Your task to perform on an android device: Go to privacy settings Image 0: 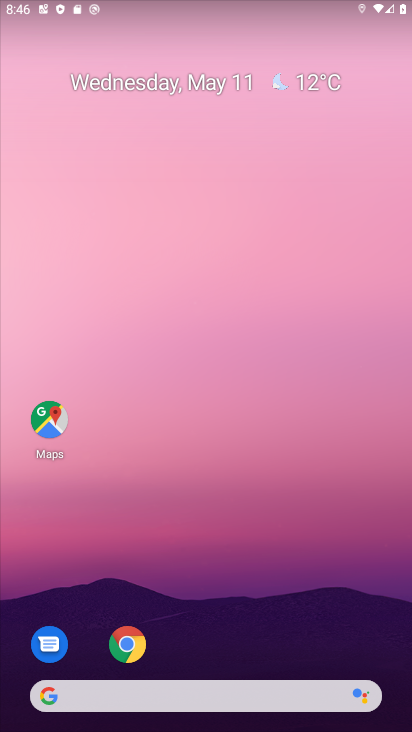
Step 0: click (119, 649)
Your task to perform on an android device: Go to privacy settings Image 1: 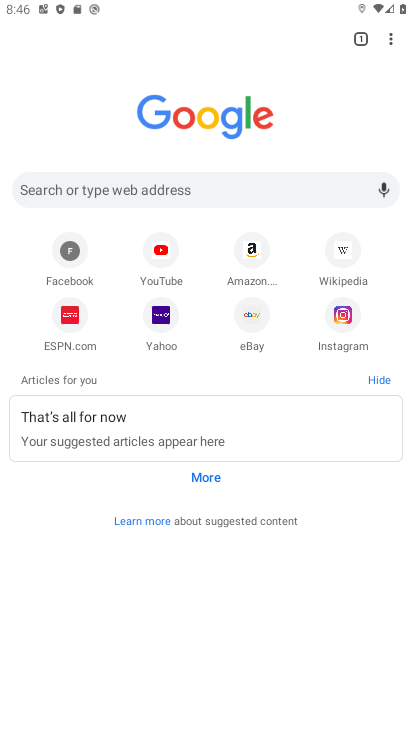
Step 1: click (390, 43)
Your task to perform on an android device: Go to privacy settings Image 2: 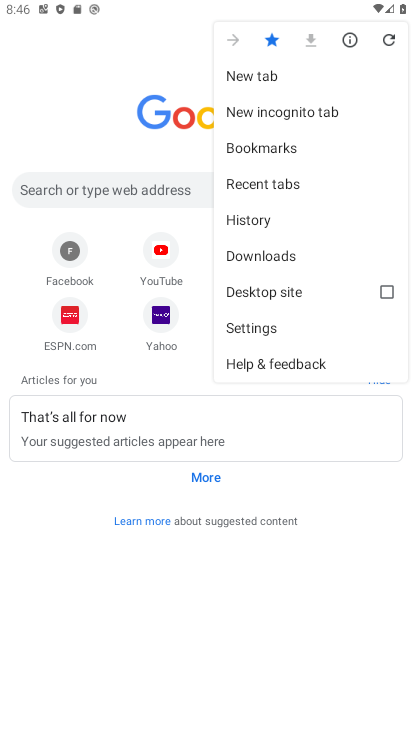
Step 2: click (262, 329)
Your task to perform on an android device: Go to privacy settings Image 3: 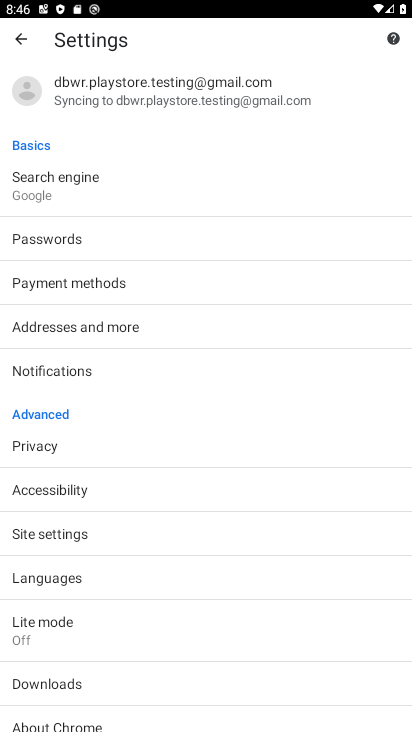
Step 3: click (43, 448)
Your task to perform on an android device: Go to privacy settings Image 4: 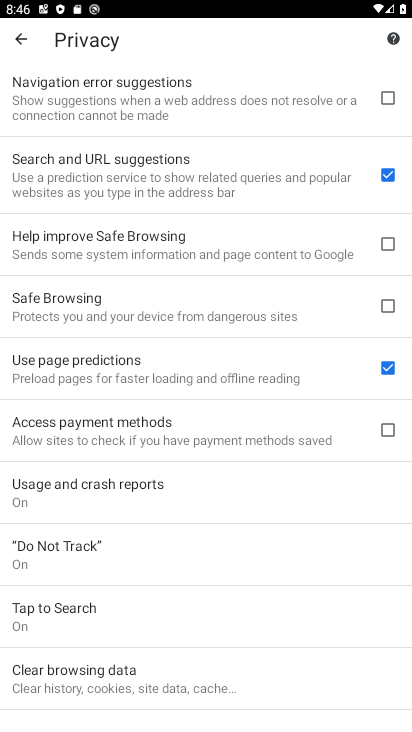
Step 4: task complete